Your task to perform on an android device: Open CNN.com Image 0: 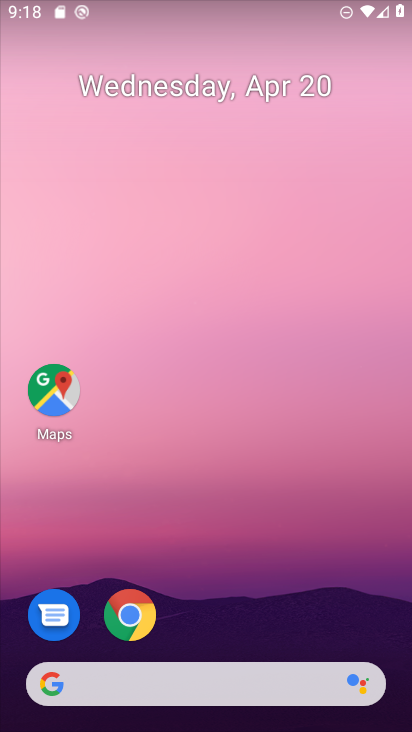
Step 0: click (131, 617)
Your task to perform on an android device: Open CNN.com Image 1: 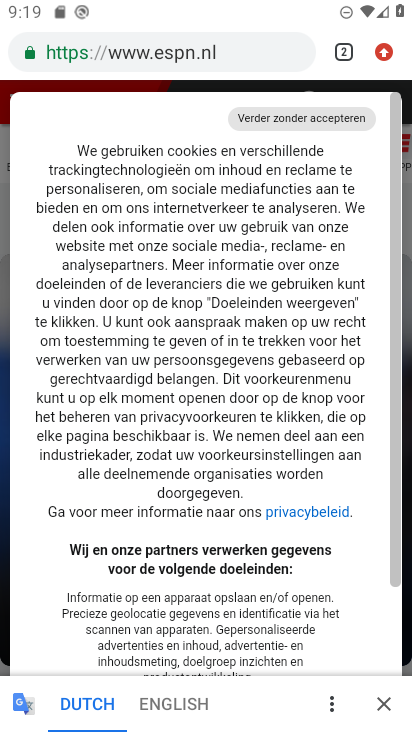
Step 1: click (275, 53)
Your task to perform on an android device: Open CNN.com Image 2: 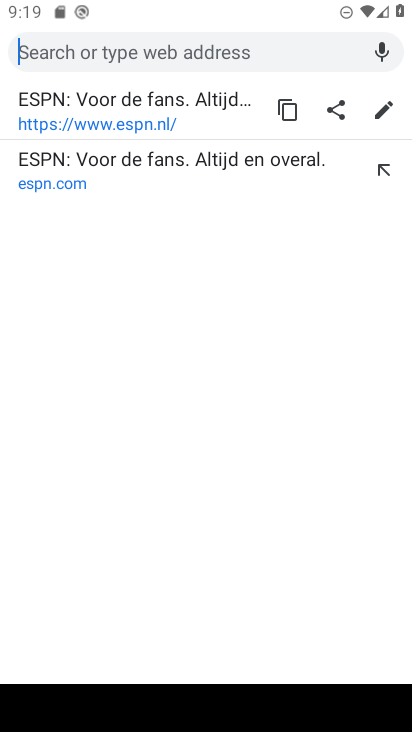
Step 2: type "CNN.com"
Your task to perform on an android device: Open CNN.com Image 3: 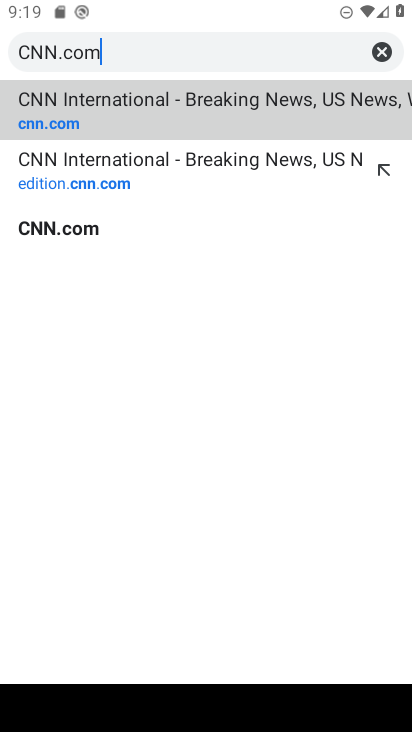
Step 3: type ""
Your task to perform on an android device: Open CNN.com Image 4: 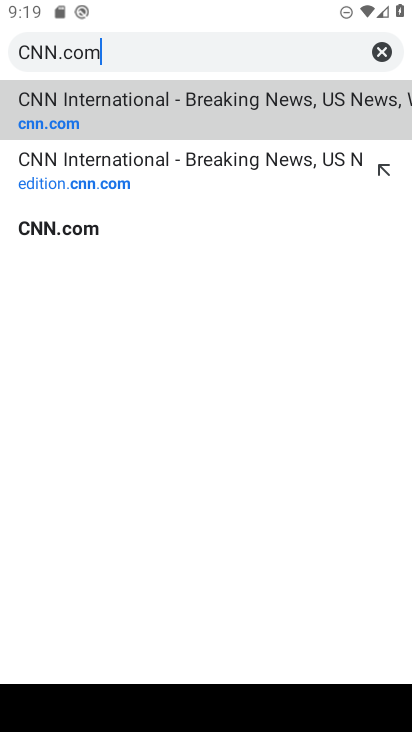
Step 4: click (143, 129)
Your task to perform on an android device: Open CNN.com Image 5: 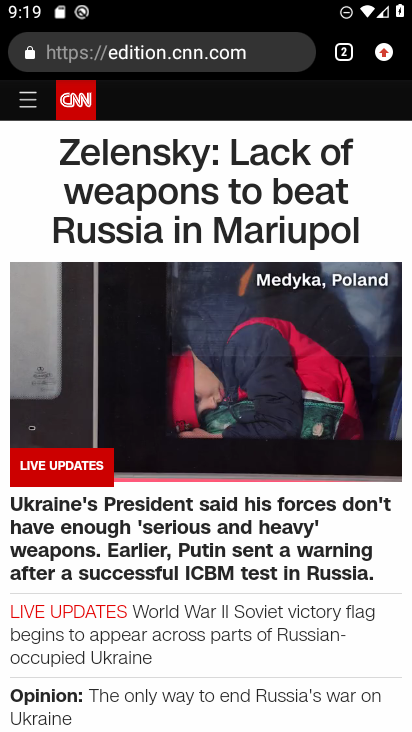
Step 5: task complete